Your task to perform on an android device: Open Amazon Image 0: 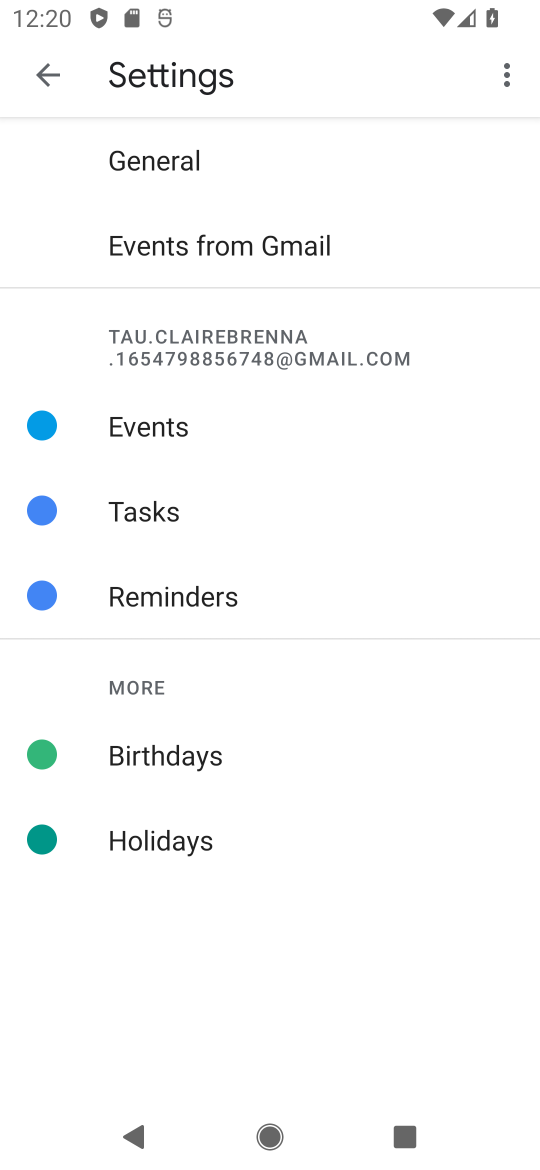
Step 0: press back button
Your task to perform on an android device: Open Amazon Image 1: 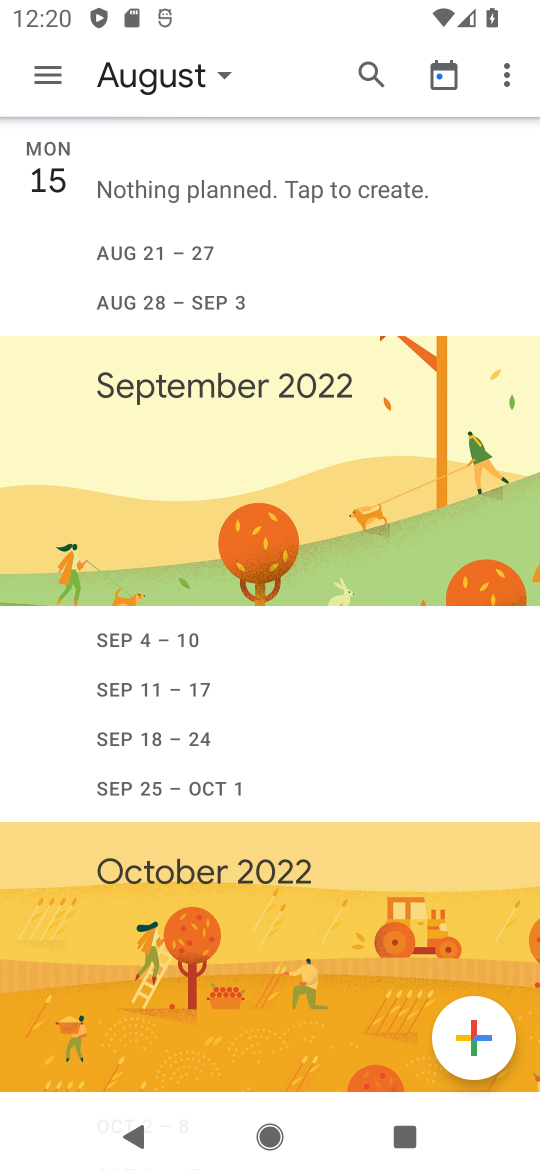
Step 1: press back button
Your task to perform on an android device: Open Amazon Image 2: 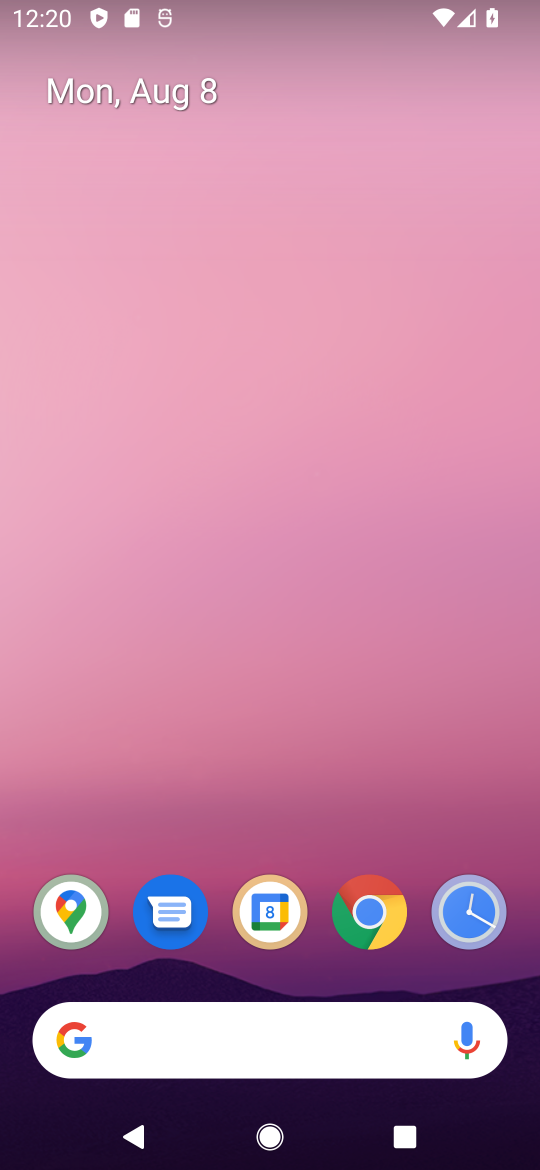
Step 2: click (369, 887)
Your task to perform on an android device: Open Amazon Image 3: 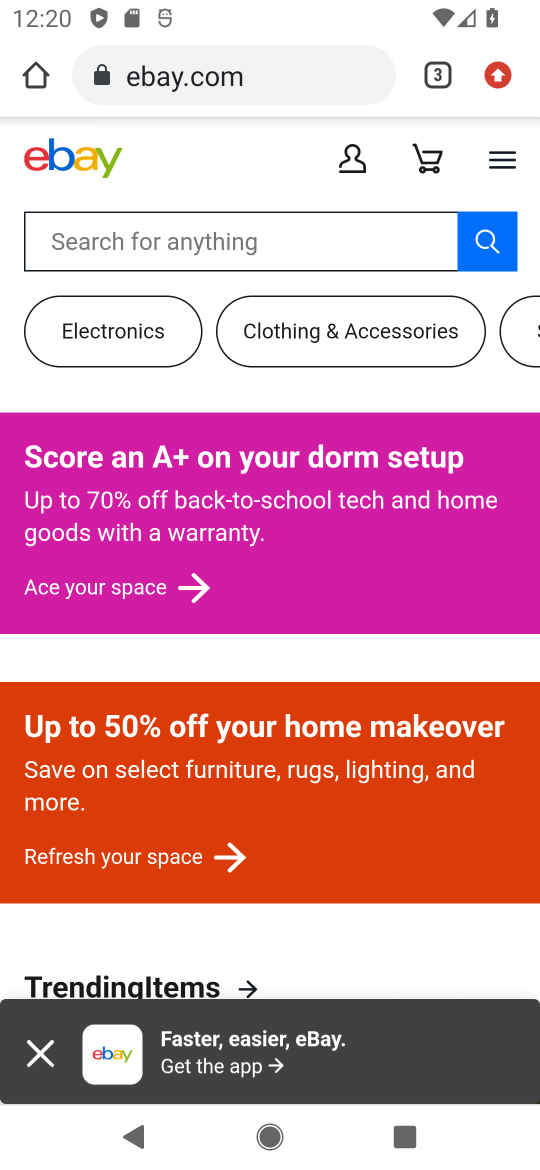
Step 3: click (435, 59)
Your task to perform on an android device: Open Amazon Image 4: 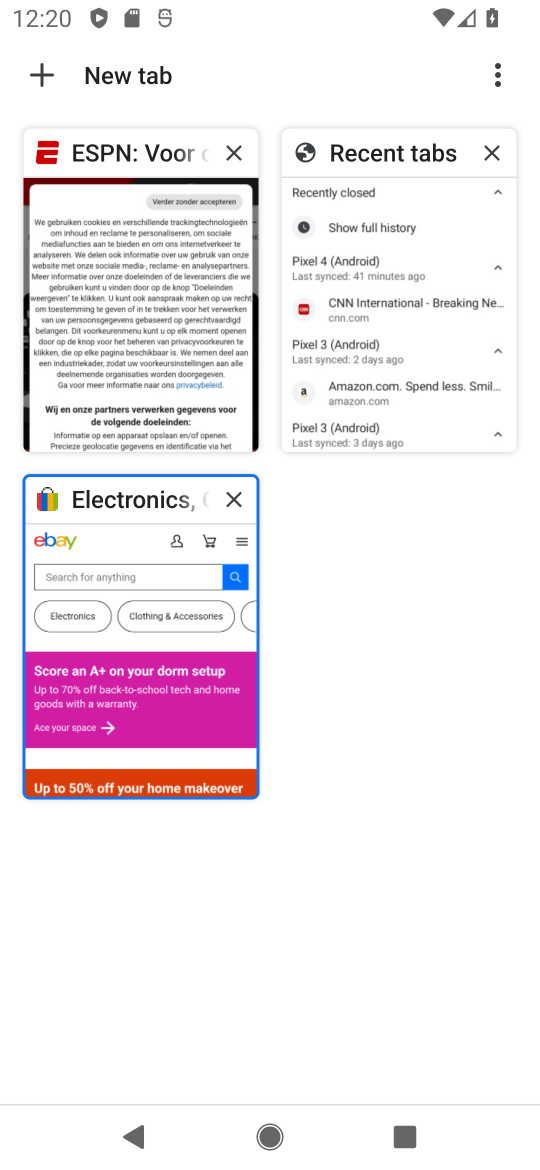
Step 4: click (40, 64)
Your task to perform on an android device: Open Amazon Image 5: 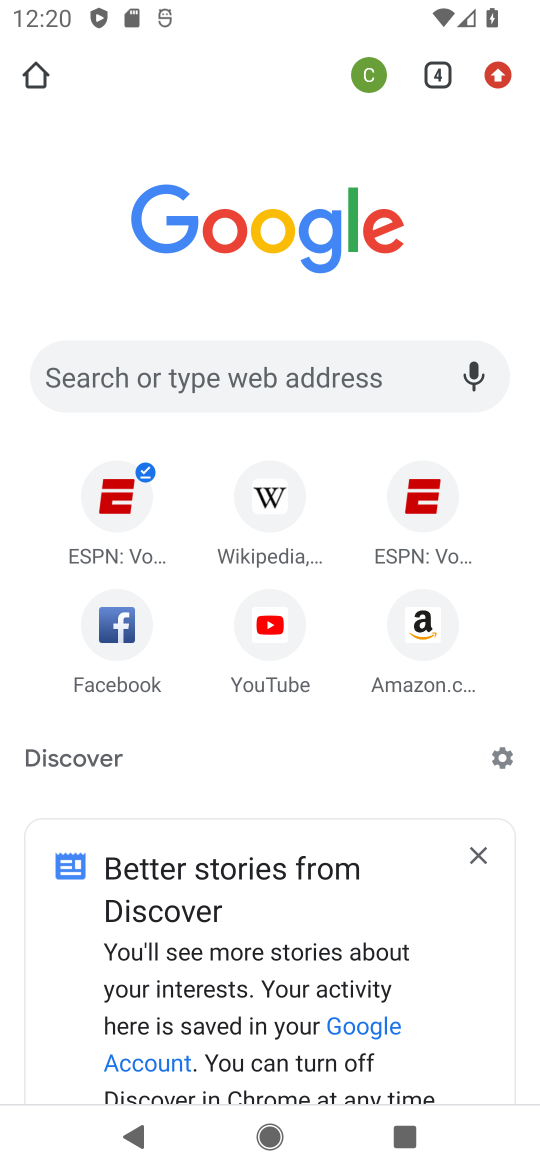
Step 5: click (406, 621)
Your task to perform on an android device: Open Amazon Image 6: 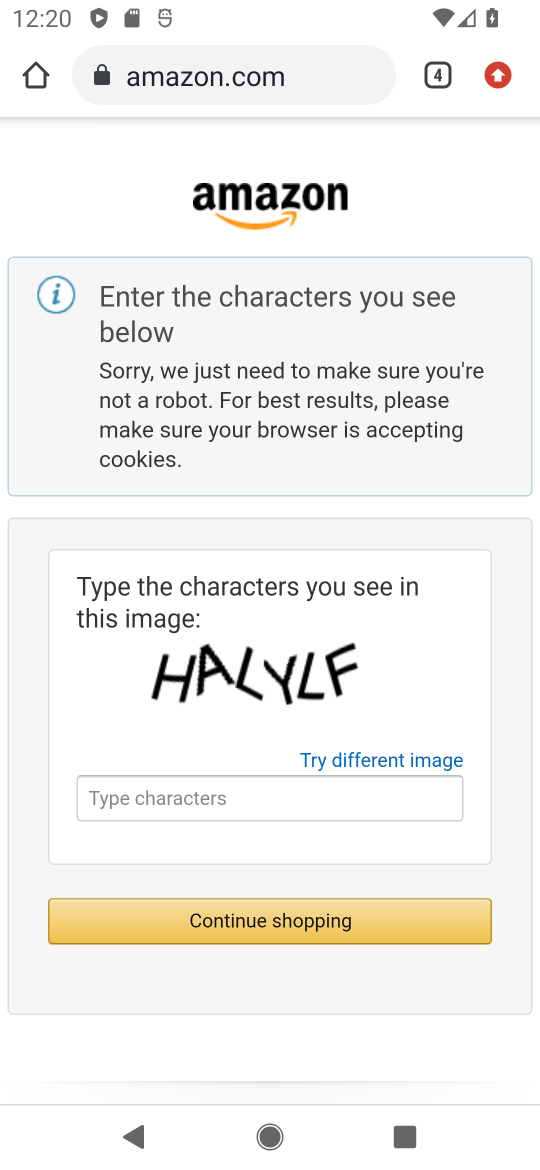
Step 6: task complete